Your task to perform on an android device: add a contact Image 0: 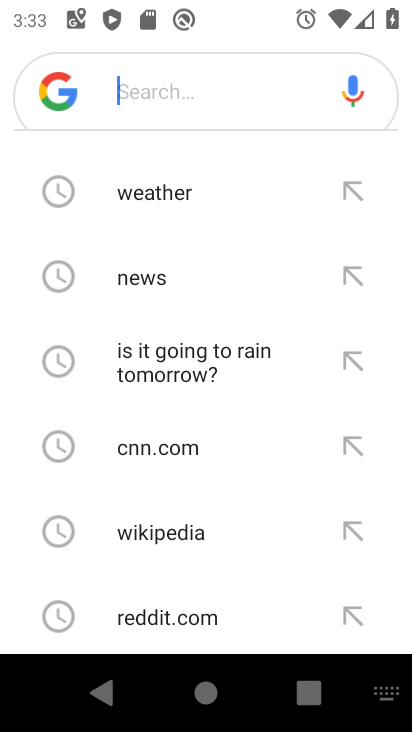
Step 0: press back button
Your task to perform on an android device: add a contact Image 1: 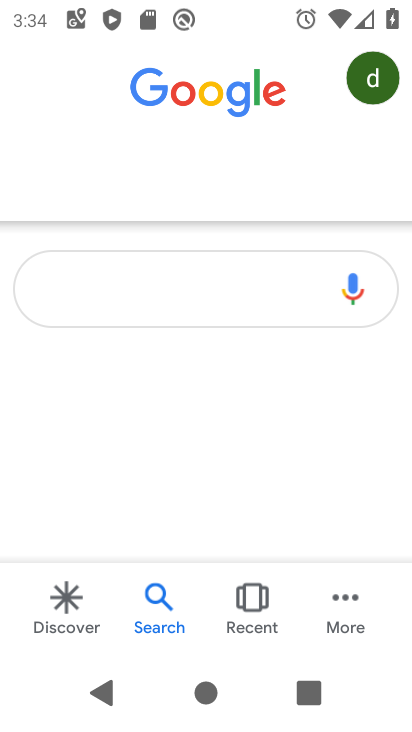
Step 1: press back button
Your task to perform on an android device: add a contact Image 2: 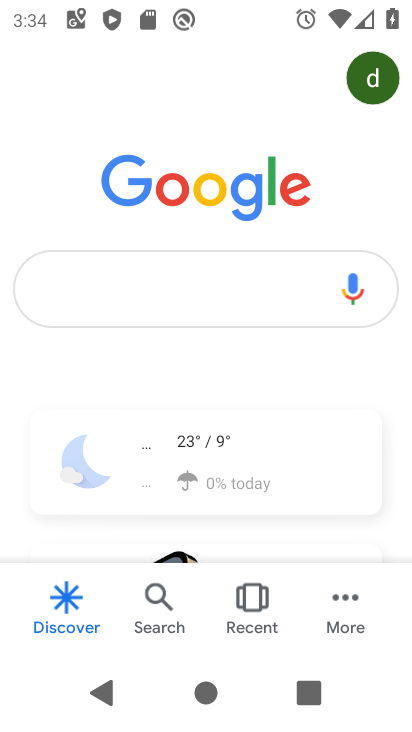
Step 2: press home button
Your task to perform on an android device: add a contact Image 3: 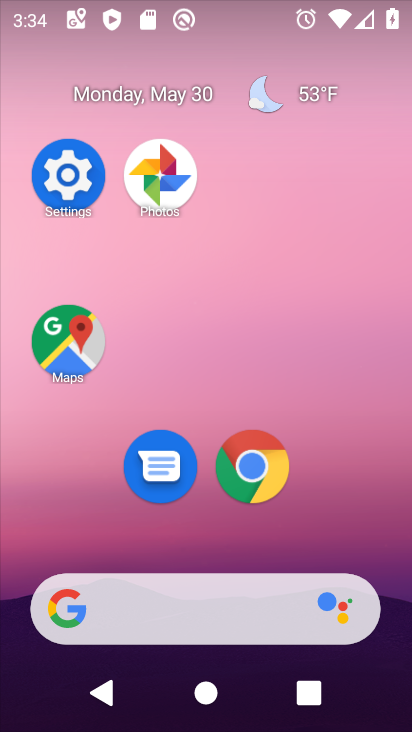
Step 3: drag from (312, 506) to (273, 128)
Your task to perform on an android device: add a contact Image 4: 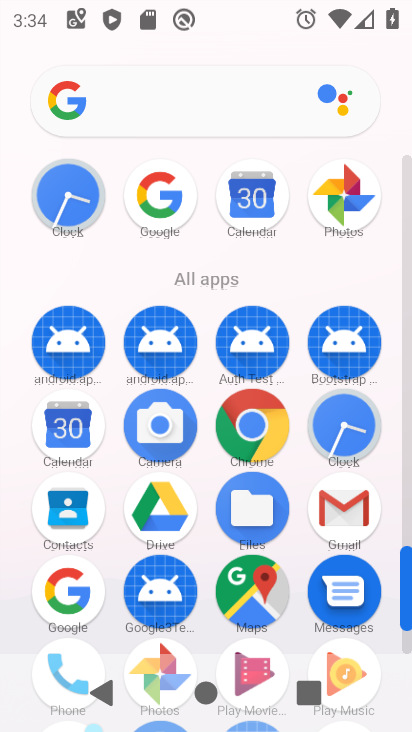
Step 4: click (97, 518)
Your task to perform on an android device: add a contact Image 5: 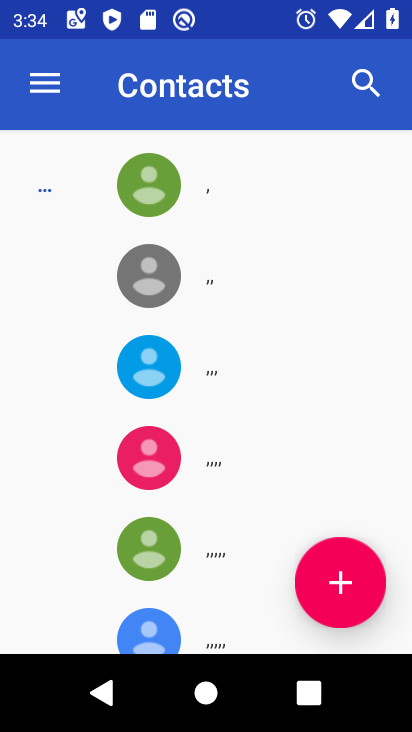
Step 5: click (368, 583)
Your task to perform on an android device: add a contact Image 6: 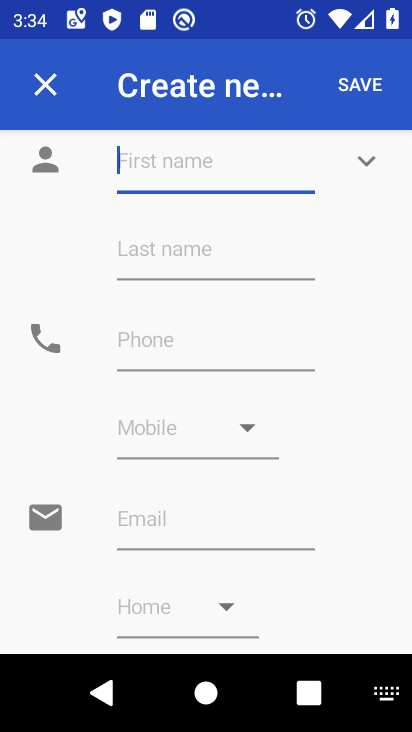
Step 6: type "ppp"
Your task to perform on an android device: add a contact Image 7: 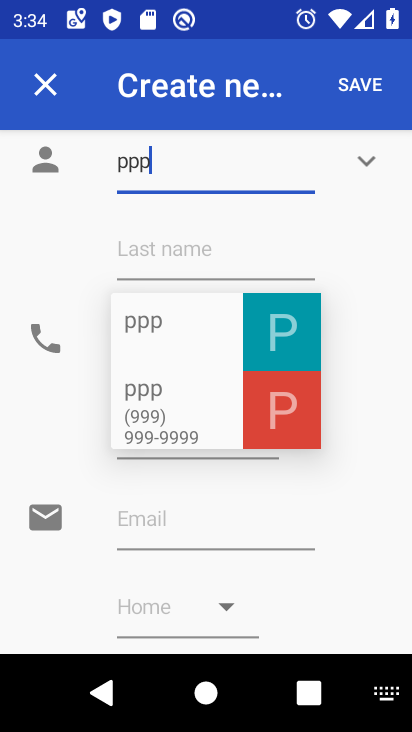
Step 7: click (203, 379)
Your task to perform on an android device: add a contact Image 8: 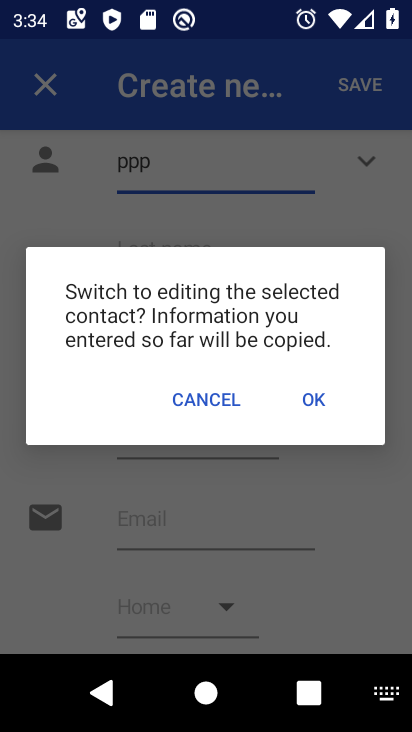
Step 8: click (219, 392)
Your task to perform on an android device: add a contact Image 9: 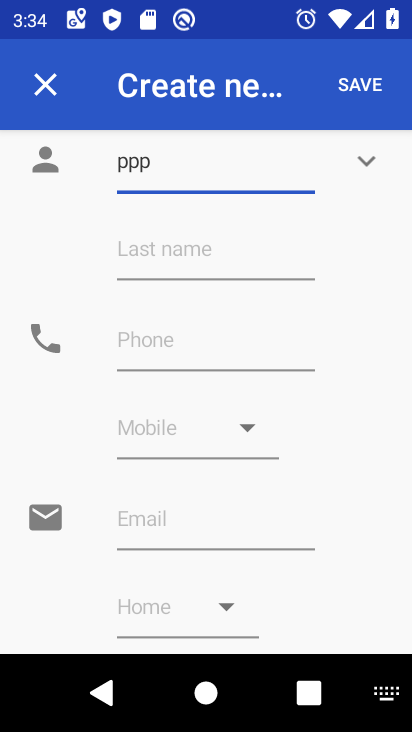
Step 9: click (196, 266)
Your task to perform on an android device: add a contact Image 10: 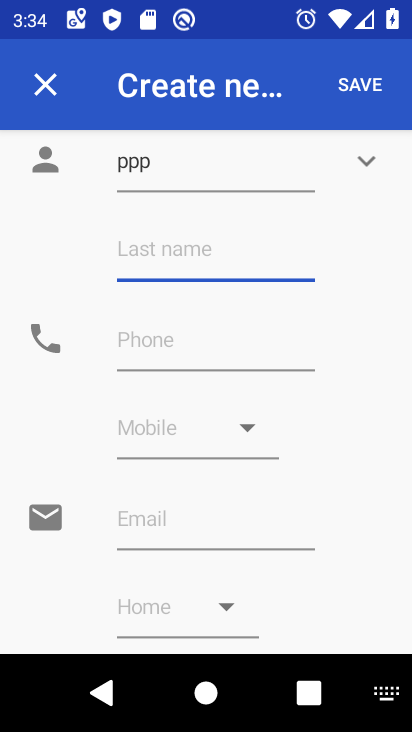
Step 10: type "ppp"
Your task to perform on an android device: add a contact Image 11: 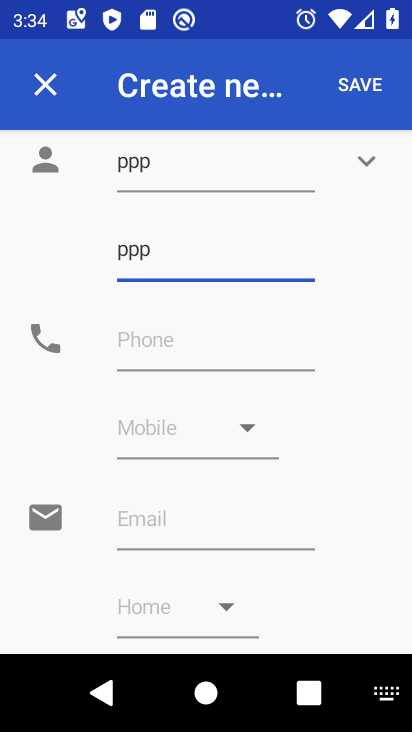
Step 11: click (109, 341)
Your task to perform on an android device: add a contact Image 12: 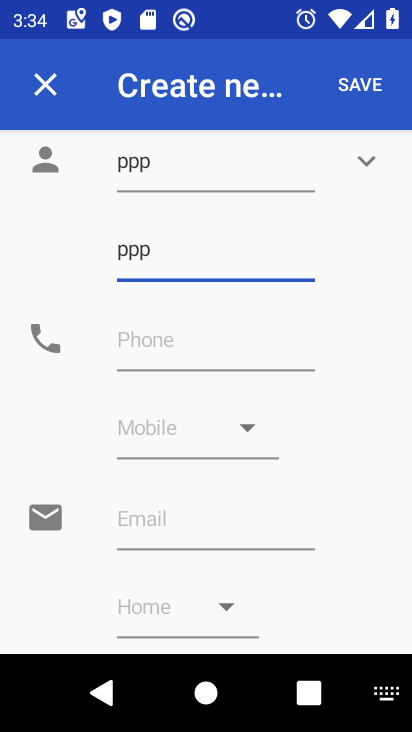
Step 12: click (224, 340)
Your task to perform on an android device: add a contact Image 13: 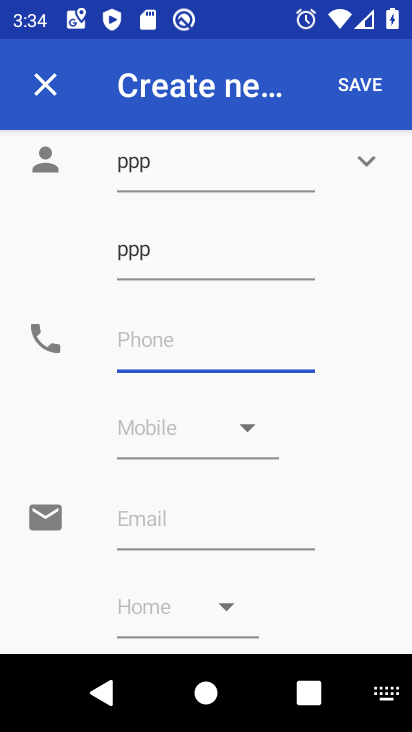
Step 13: type "8877665545"
Your task to perform on an android device: add a contact Image 14: 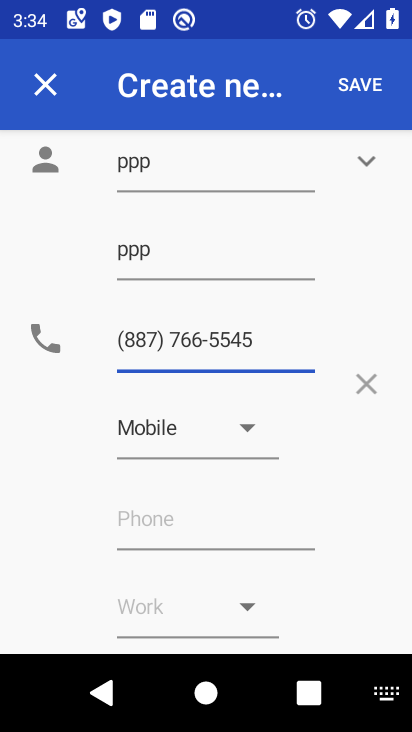
Step 14: click (346, 101)
Your task to perform on an android device: add a contact Image 15: 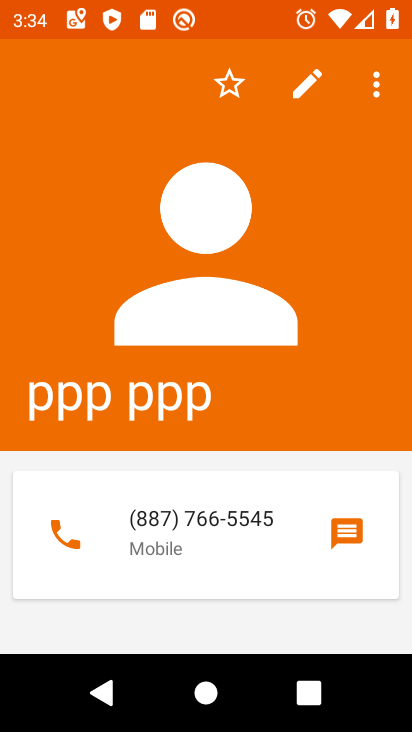
Step 15: task complete